Your task to perform on an android device: Open battery settings Image 0: 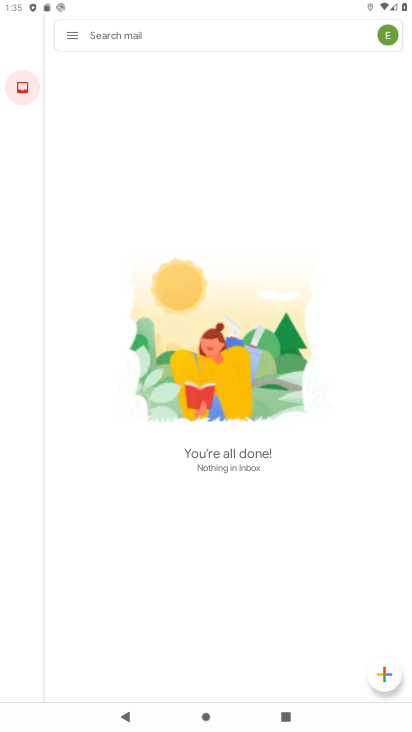
Step 0: press back button
Your task to perform on an android device: Open battery settings Image 1: 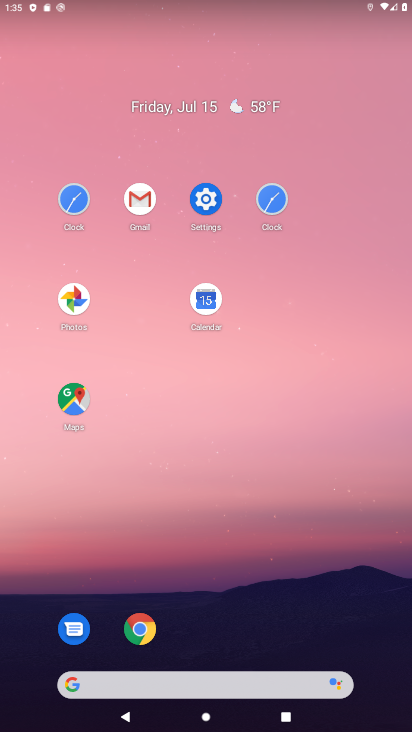
Step 1: click (210, 206)
Your task to perform on an android device: Open battery settings Image 2: 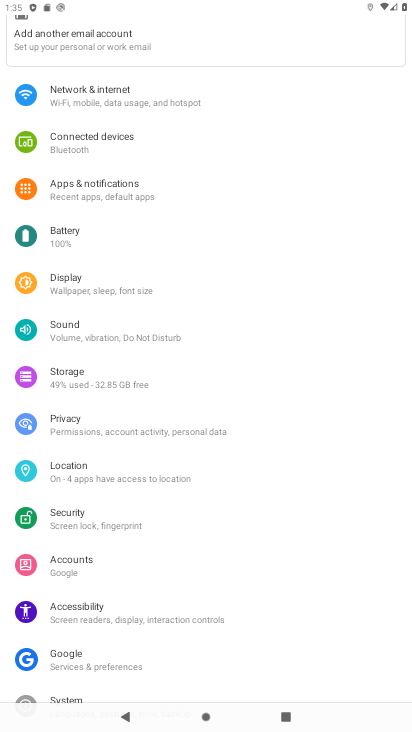
Step 2: click (118, 239)
Your task to perform on an android device: Open battery settings Image 3: 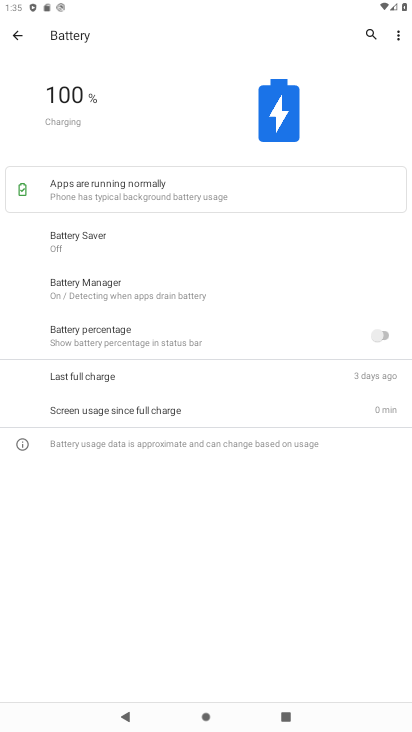
Step 3: task complete